Your task to perform on an android device: What is the news today? Image 0: 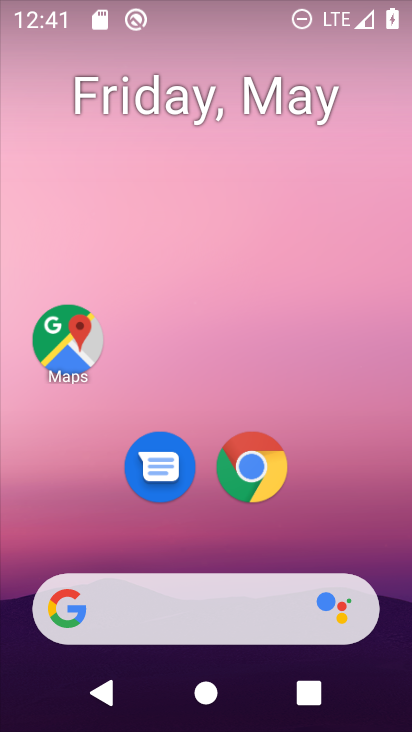
Step 0: drag from (300, 616) to (342, 35)
Your task to perform on an android device: What is the news today? Image 1: 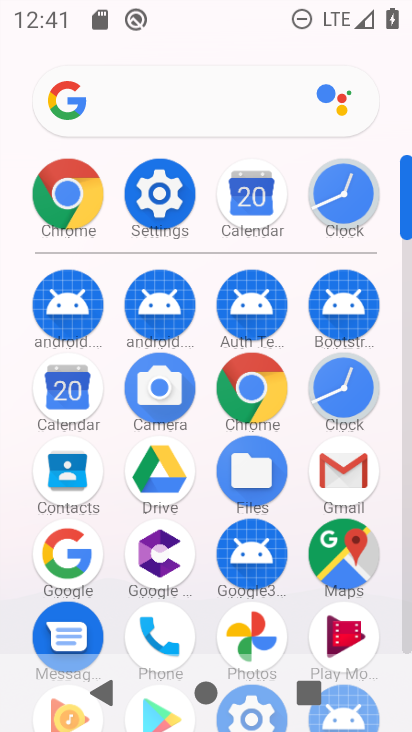
Step 1: click (245, 399)
Your task to perform on an android device: What is the news today? Image 2: 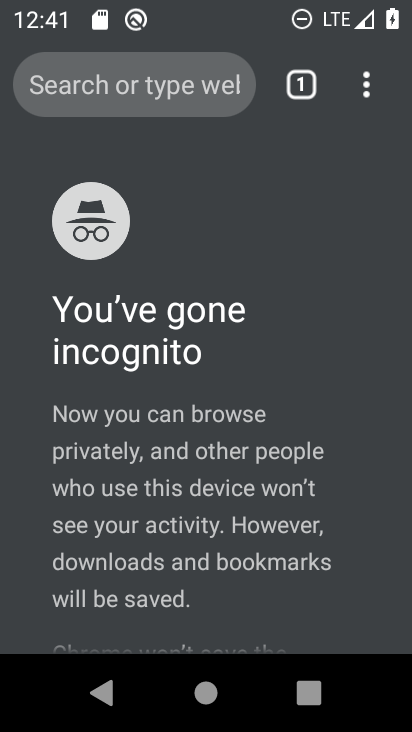
Step 2: click (198, 96)
Your task to perform on an android device: What is the news today? Image 3: 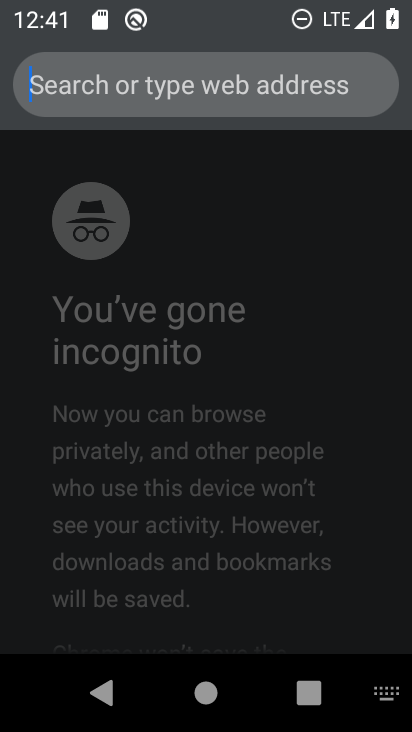
Step 3: type "news today"
Your task to perform on an android device: What is the news today? Image 4: 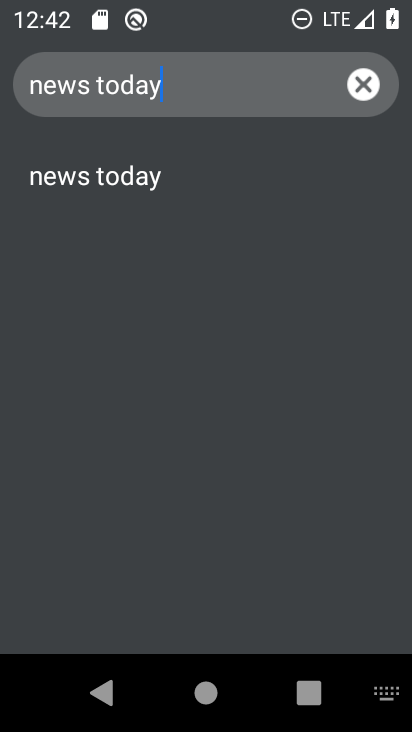
Step 4: click (185, 191)
Your task to perform on an android device: What is the news today? Image 5: 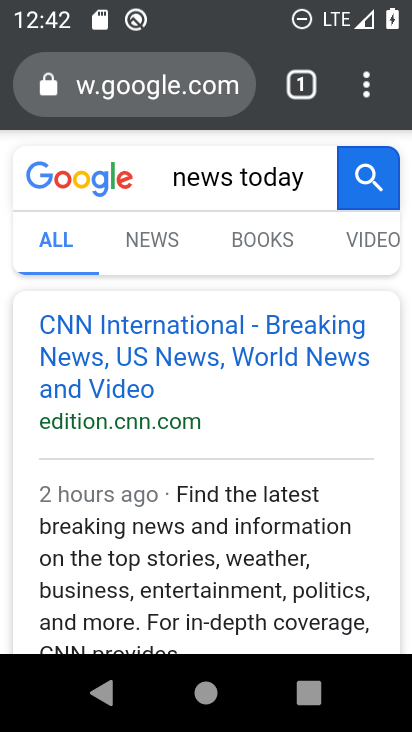
Step 5: task complete